Your task to perform on an android device: delete browsing data in the chrome app Image 0: 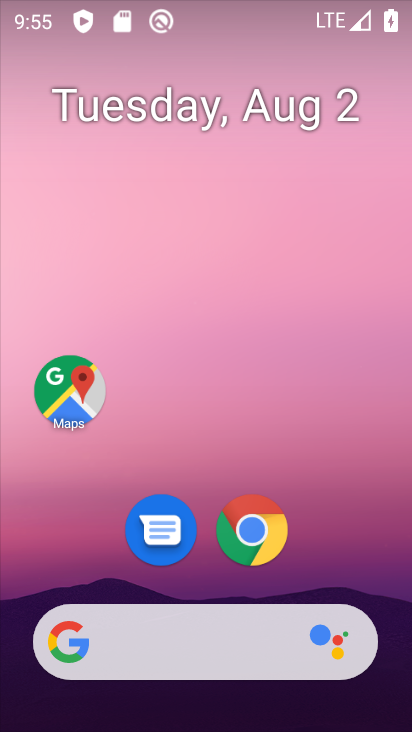
Step 0: drag from (352, 563) to (284, 73)
Your task to perform on an android device: delete browsing data in the chrome app Image 1: 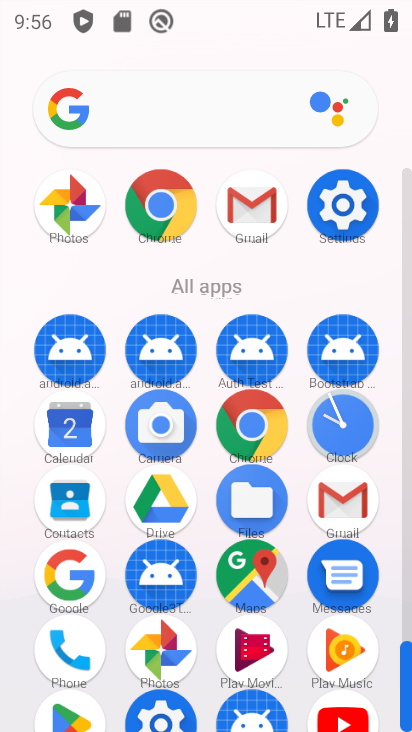
Step 1: drag from (407, 668) to (409, 441)
Your task to perform on an android device: delete browsing data in the chrome app Image 2: 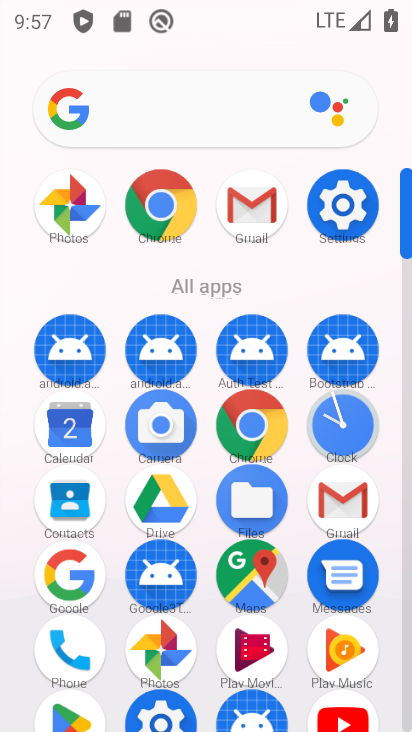
Step 2: click (357, 235)
Your task to perform on an android device: delete browsing data in the chrome app Image 3: 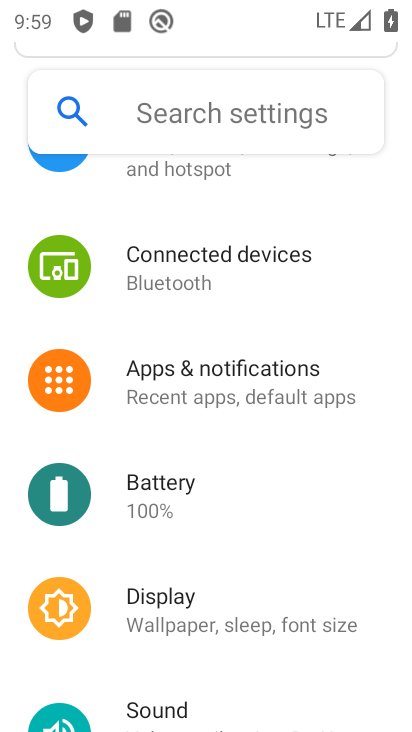
Step 3: drag from (190, 657) to (183, 590)
Your task to perform on an android device: delete browsing data in the chrome app Image 4: 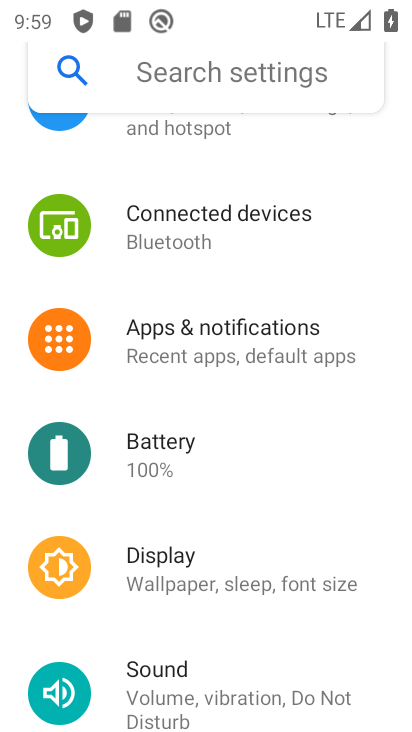
Step 4: press home button
Your task to perform on an android device: delete browsing data in the chrome app Image 5: 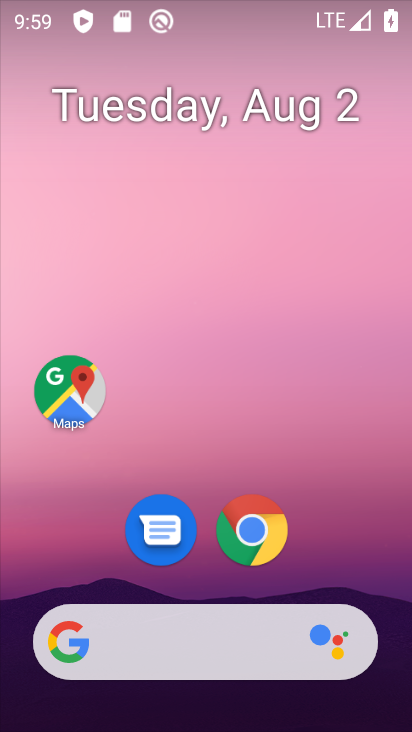
Step 5: click (282, 541)
Your task to perform on an android device: delete browsing data in the chrome app Image 6: 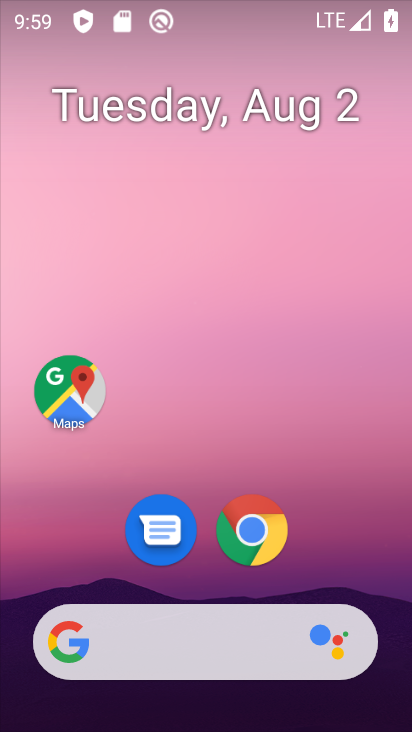
Step 6: click (235, 531)
Your task to perform on an android device: delete browsing data in the chrome app Image 7: 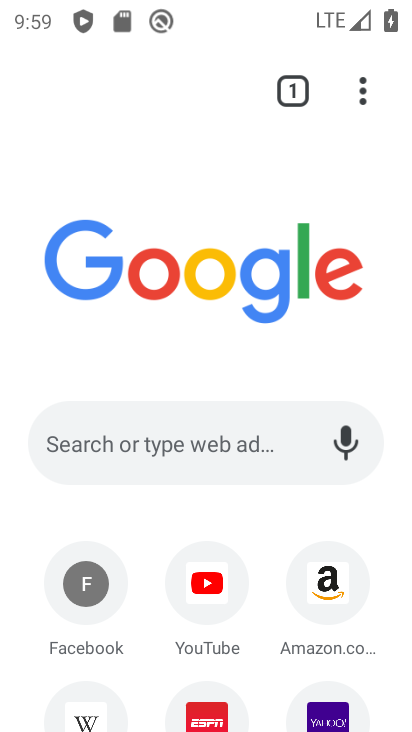
Step 7: click (254, 648)
Your task to perform on an android device: delete browsing data in the chrome app Image 8: 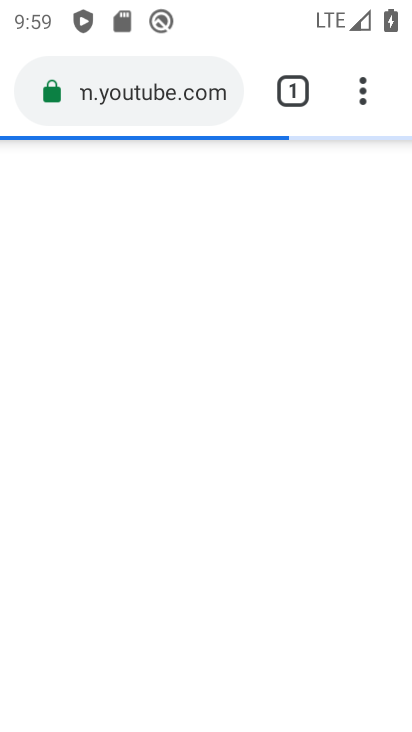
Step 8: drag from (373, 86) to (67, 565)
Your task to perform on an android device: delete browsing data in the chrome app Image 9: 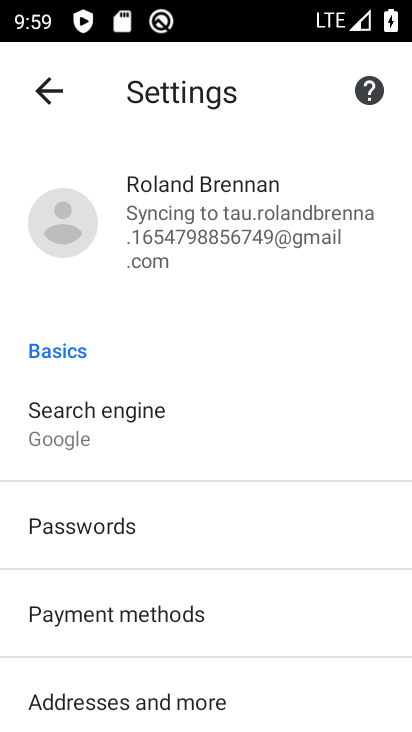
Step 9: drag from (181, 580) to (107, 199)
Your task to perform on an android device: delete browsing data in the chrome app Image 10: 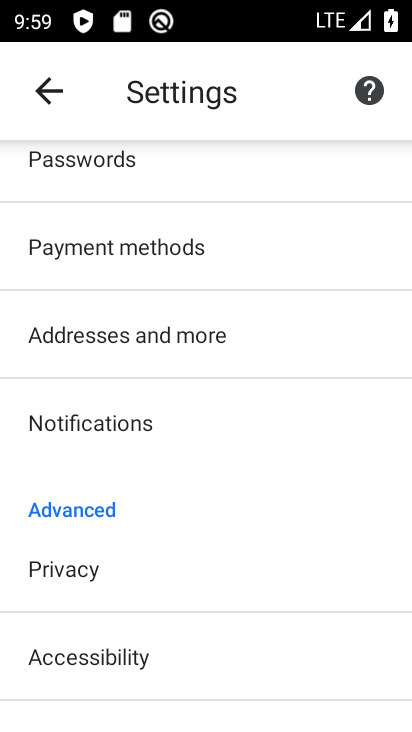
Step 10: drag from (171, 622) to (162, 441)
Your task to perform on an android device: delete browsing data in the chrome app Image 11: 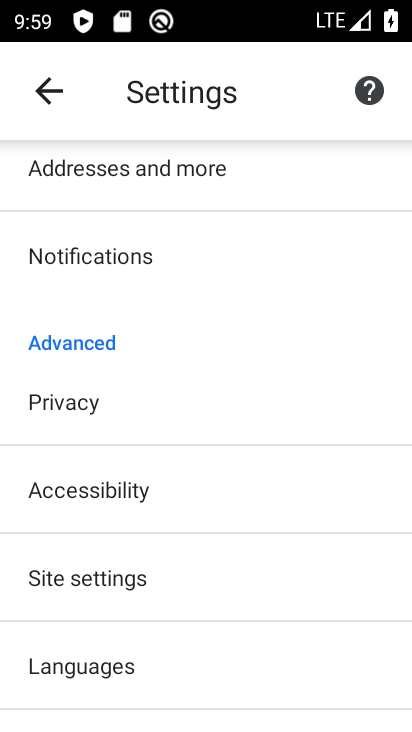
Step 11: click (107, 406)
Your task to perform on an android device: delete browsing data in the chrome app Image 12: 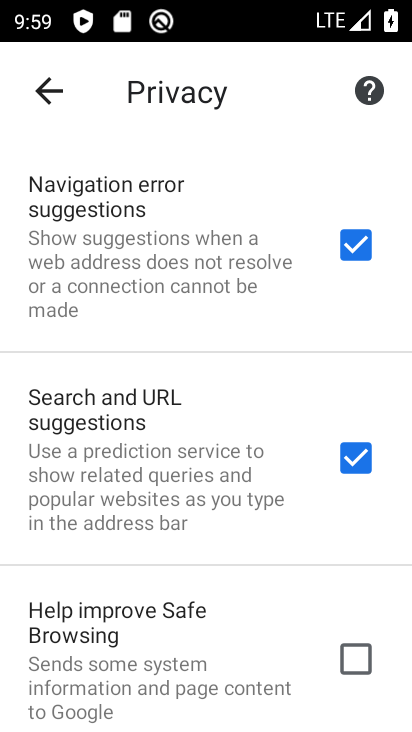
Step 12: drag from (154, 614) to (82, 232)
Your task to perform on an android device: delete browsing data in the chrome app Image 13: 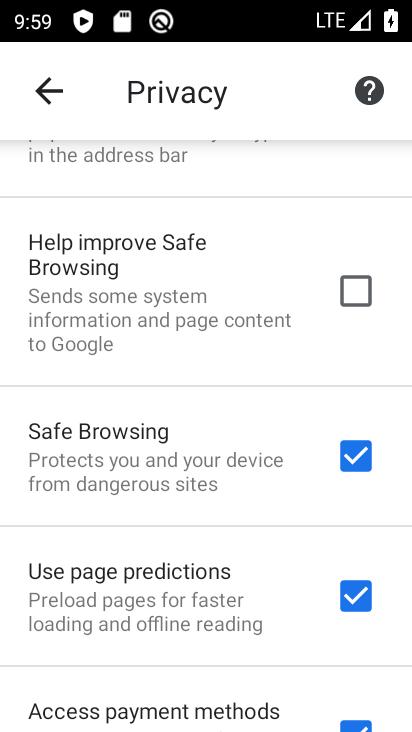
Step 13: drag from (176, 615) to (105, 197)
Your task to perform on an android device: delete browsing data in the chrome app Image 14: 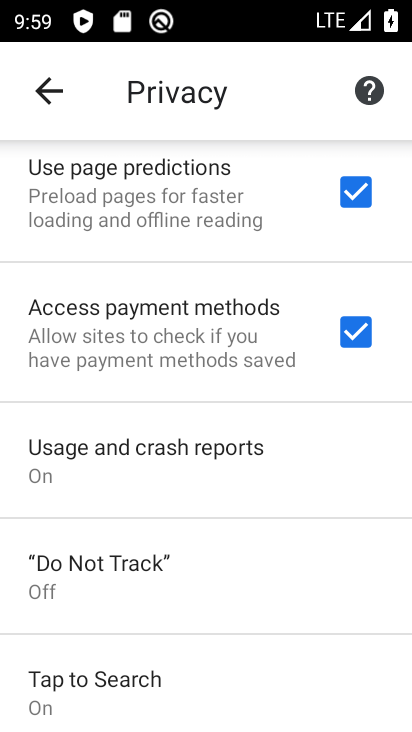
Step 14: drag from (140, 565) to (134, 174)
Your task to perform on an android device: delete browsing data in the chrome app Image 15: 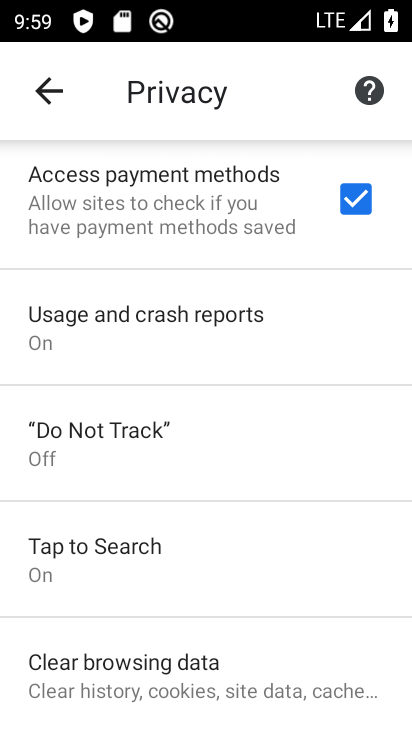
Step 15: click (130, 655)
Your task to perform on an android device: delete browsing data in the chrome app Image 16: 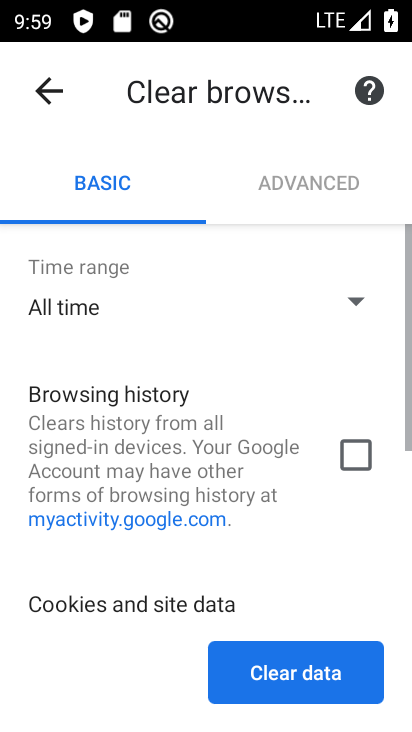
Step 16: click (282, 673)
Your task to perform on an android device: delete browsing data in the chrome app Image 17: 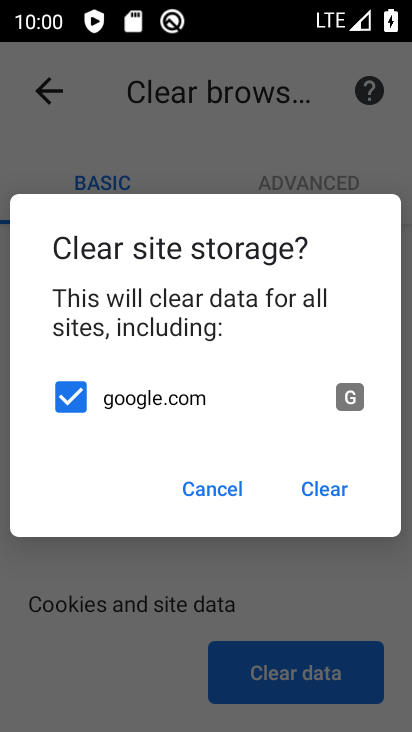
Step 17: click (245, 487)
Your task to perform on an android device: delete browsing data in the chrome app Image 18: 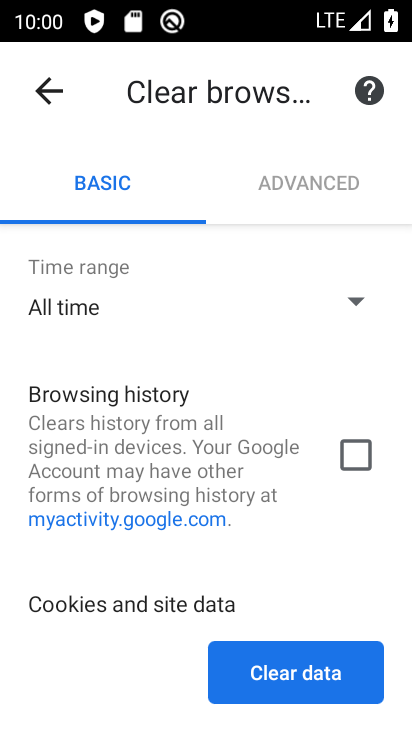
Step 18: click (352, 444)
Your task to perform on an android device: delete browsing data in the chrome app Image 19: 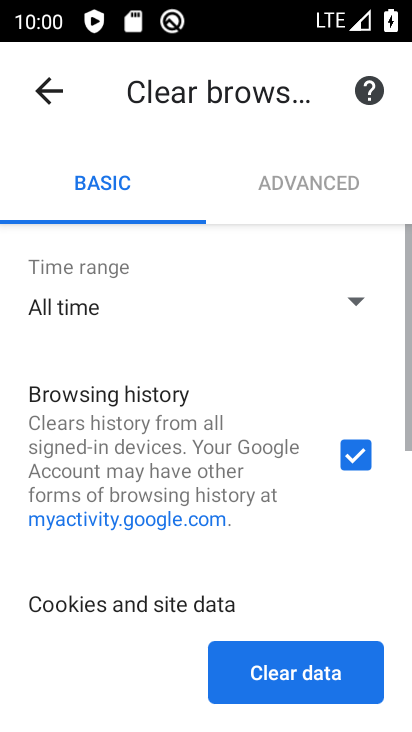
Step 19: click (369, 686)
Your task to perform on an android device: delete browsing data in the chrome app Image 20: 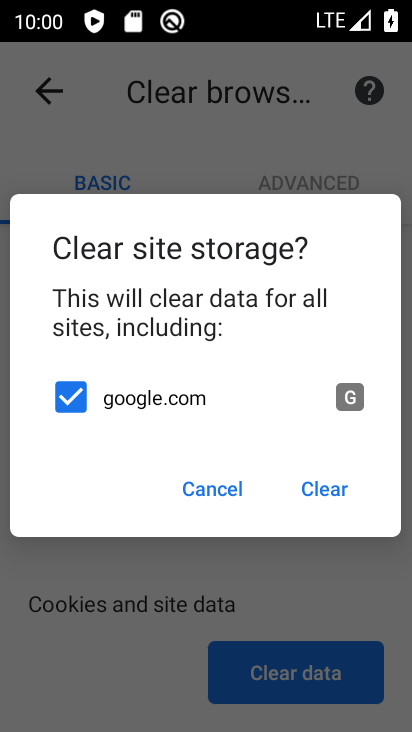
Step 20: click (343, 481)
Your task to perform on an android device: delete browsing data in the chrome app Image 21: 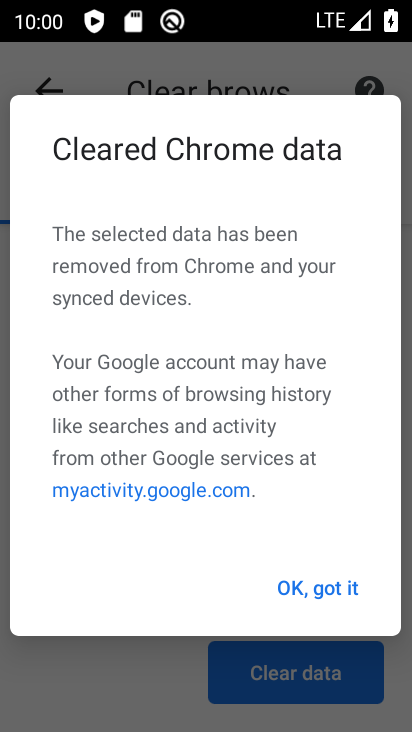
Step 21: click (315, 589)
Your task to perform on an android device: delete browsing data in the chrome app Image 22: 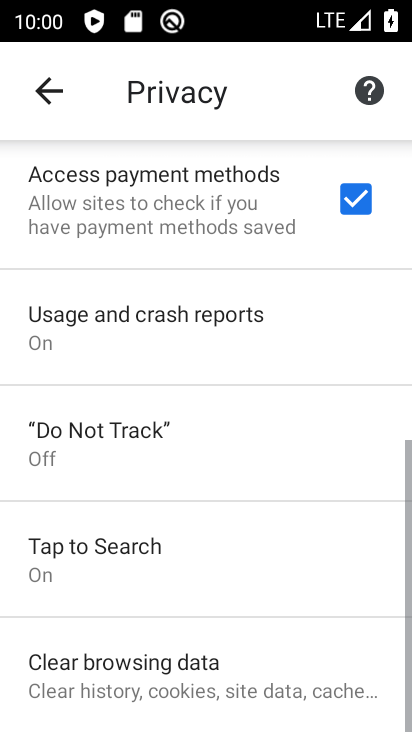
Step 22: task complete